Your task to perform on an android device: turn off sleep mode Image 0: 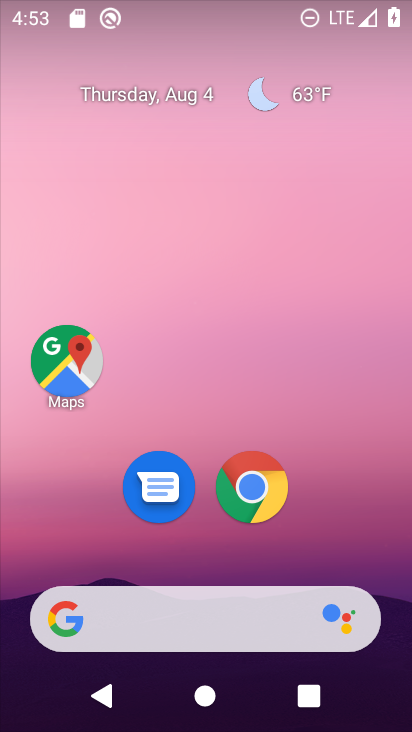
Step 0: drag from (117, 537) to (207, 15)
Your task to perform on an android device: turn off sleep mode Image 1: 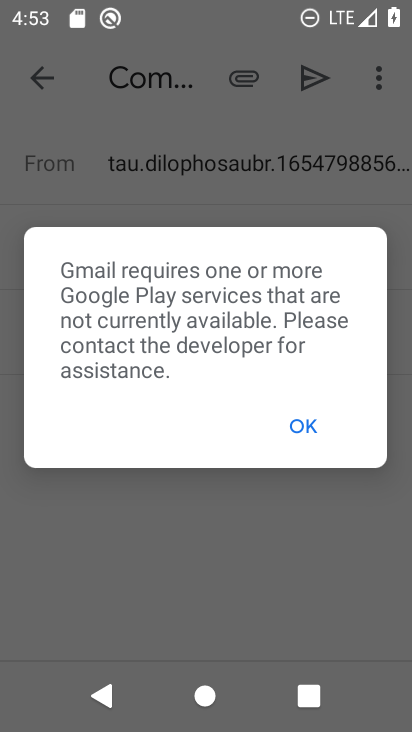
Step 1: click (306, 425)
Your task to perform on an android device: turn off sleep mode Image 2: 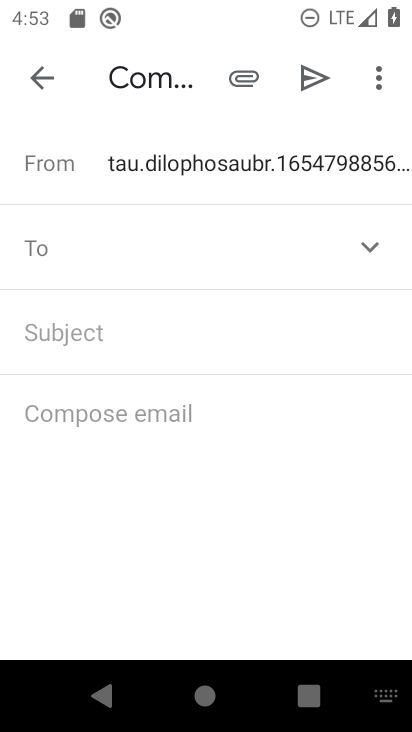
Step 2: press back button
Your task to perform on an android device: turn off sleep mode Image 3: 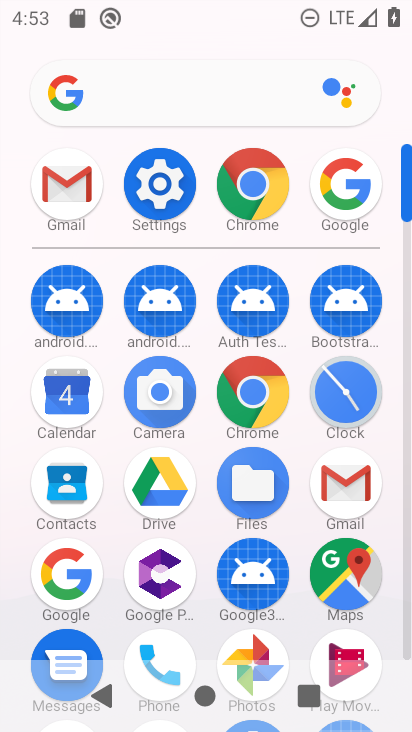
Step 3: click (160, 181)
Your task to perform on an android device: turn off sleep mode Image 4: 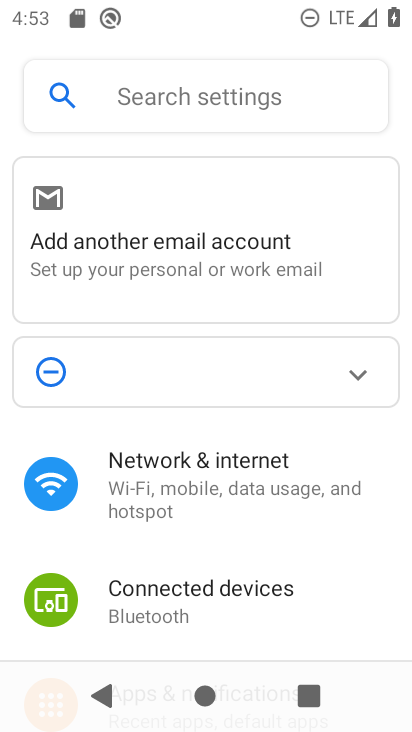
Step 4: click (218, 100)
Your task to perform on an android device: turn off sleep mode Image 5: 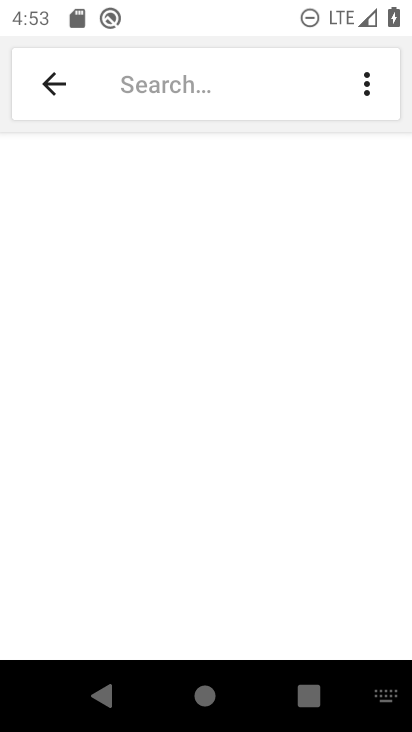
Step 5: type "sleep mode"
Your task to perform on an android device: turn off sleep mode Image 6: 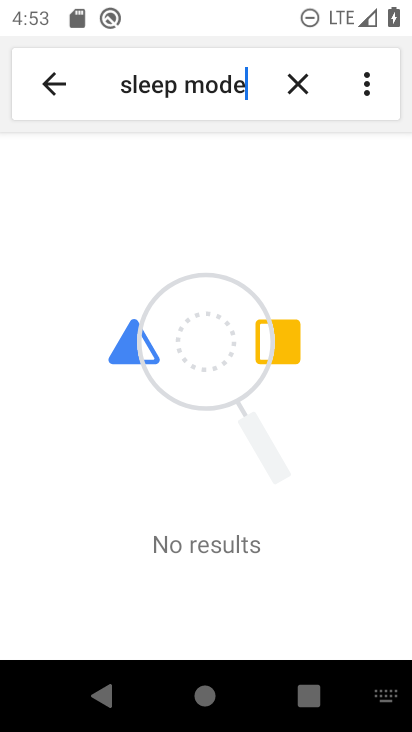
Step 6: task complete